Your task to perform on an android device: change keyboard looks Image 0: 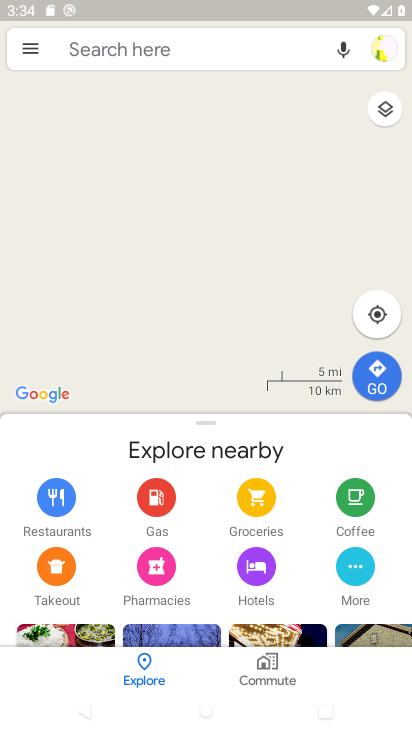
Step 0: press home button
Your task to perform on an android device: change keyboard looks Image 1: 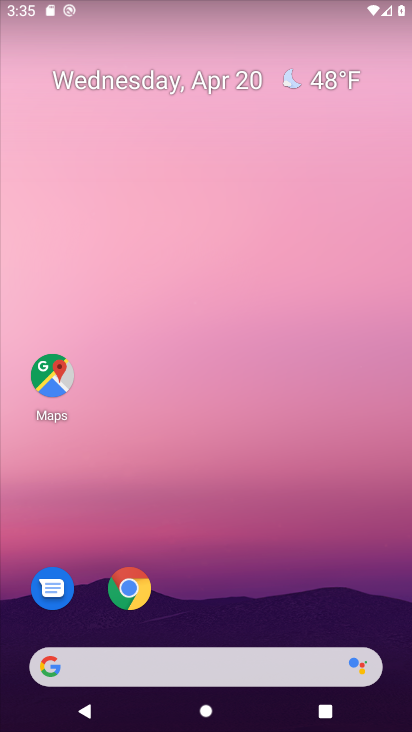
Step 1: drag from (330, 514) to (331, 144)
Your task to perform on an android device: change keyboard looks Image 2: 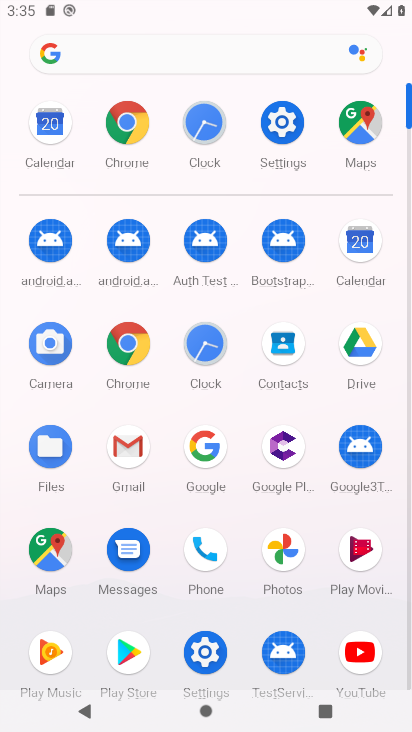
Step 2: click (285, 109)
Your task to perform on an android device: change keyboard looks Image 3: 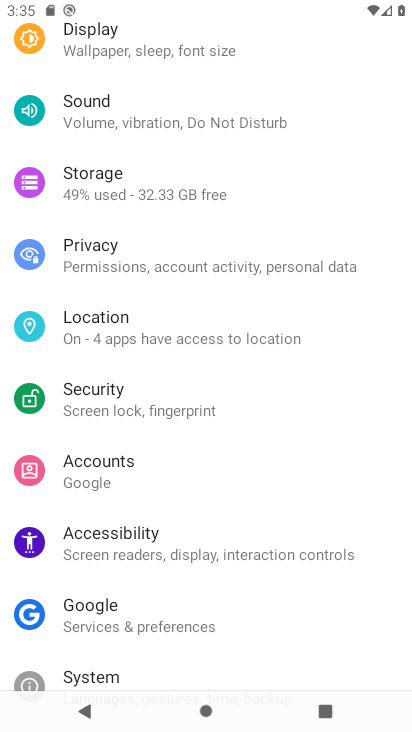
Step 3: drag from (375, 223) to (367, 435)
Your task to perform on an android device: change keyboard looks Image 4: 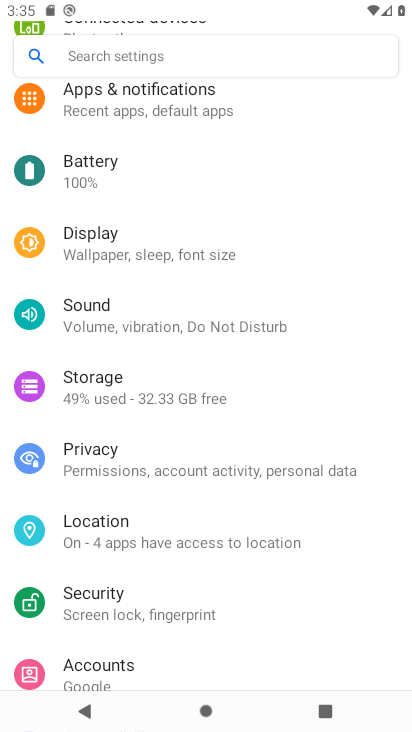
Step 4: drag from (364, 222) to (355, 473)
Your task to perform on an android device: change keyboard looks Image 5: 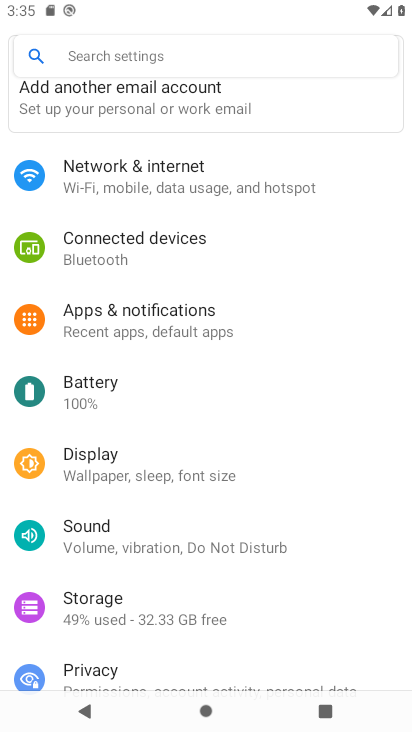
Step 5: drag from (343, 219) to (337, 430)
Your task to perform on an android device: change keyboard looks Image 6: 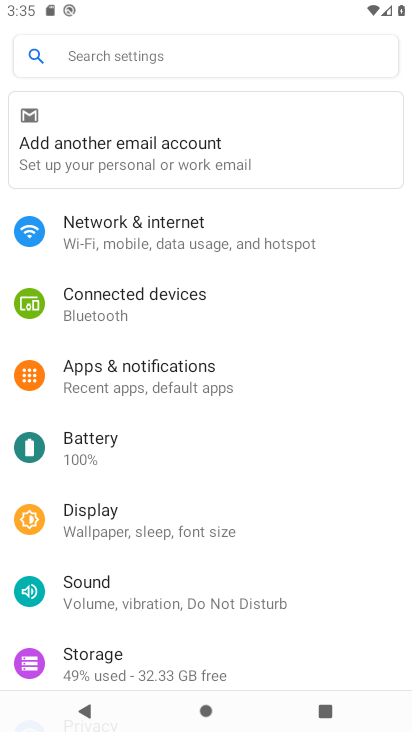
Step 6: drag from (327, 470) to (347, 267)
Your task to perform on an android device: change keyboard looks Image 7: 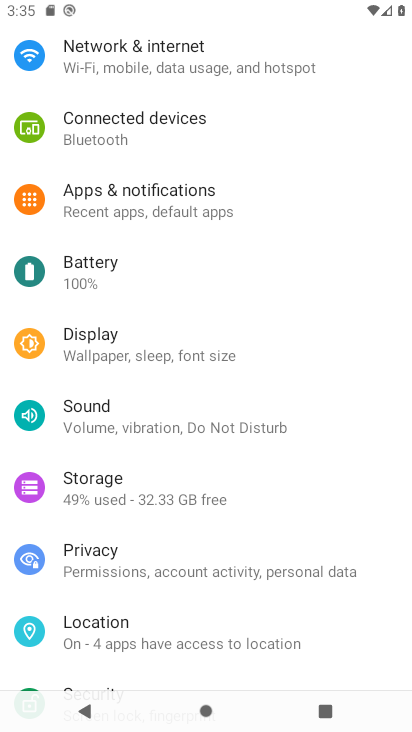
Step 7: drag from (314, 488) to (315, 231)
Your task to perform on an android device: change keyboard looks Image 8: 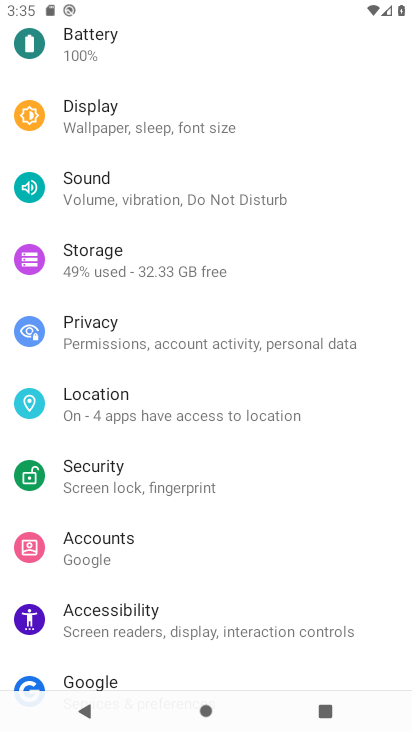
Step 8: drag from (313, 524) to (318, 306)
Your task to perform on an android device: change keyboard looks Image 9: 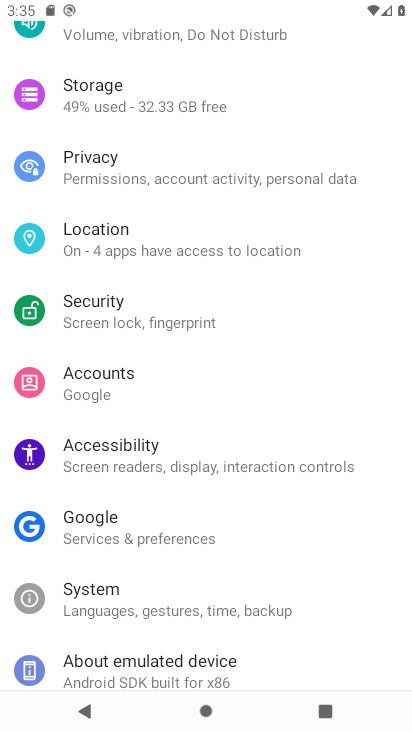
Step 9: drag from (349, 603) to (345, 389)
Your task to perform on an android device: change keyboard looks Image 10: 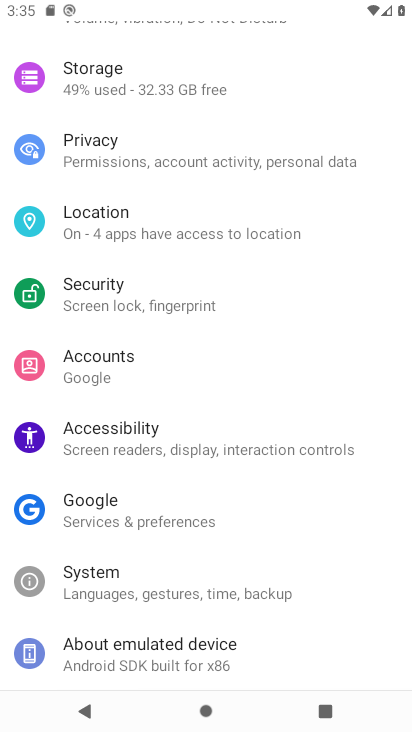
Step 10: click (225, 585)
Your task to perform on an android device: change keyboard looks Image 11: 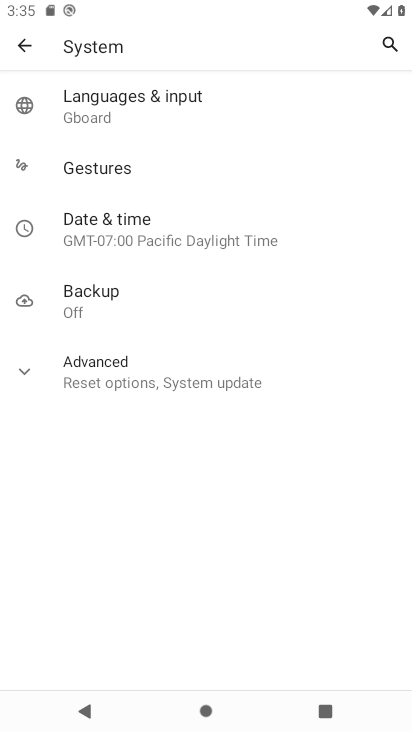
Step 11: click (100, 108)
Your task to perform on an android device: change keyboard looks Image 12: 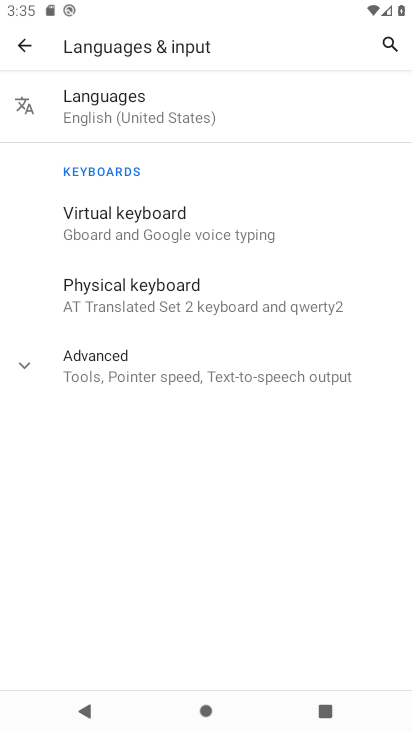
Step 12: click (199, 216)
Your task to perform on an android device: change keyboard looks Image 13: 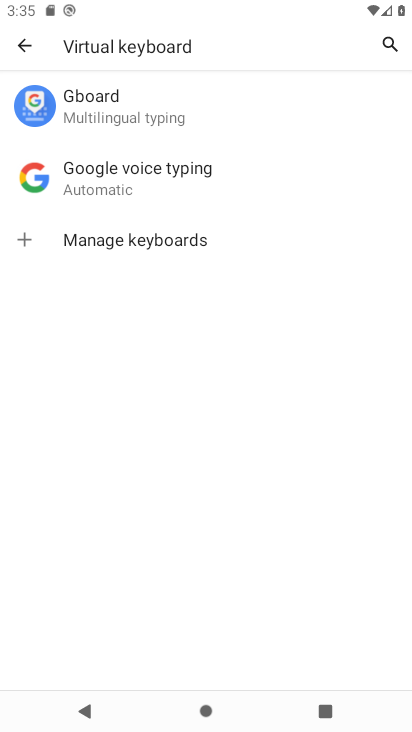
Step 13: click (109, 99)
Your task to perform on an android device: change keyboard looks Image 14: 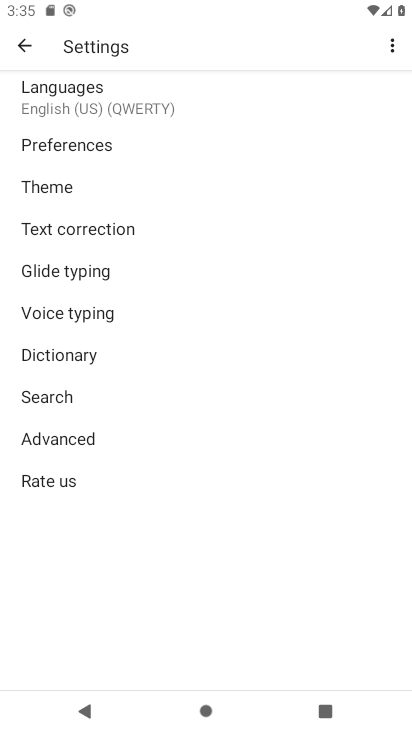
Step 14: click (105, 188)
Your task to perform on an android device: change keyboard looks Image 15: 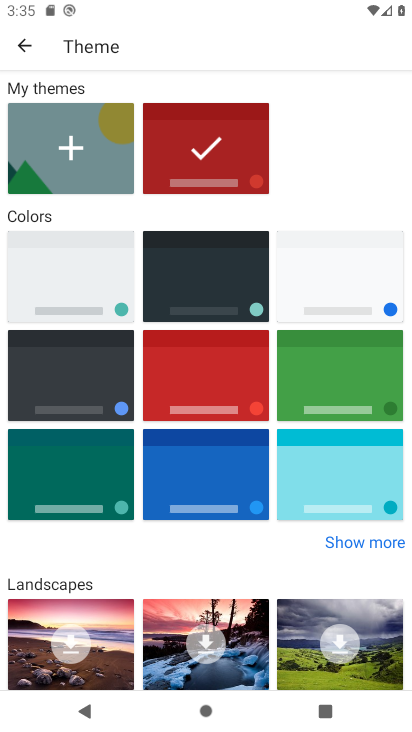
Step 15: click (204, 386)
Your task to perform on an android device: change keyboard looks Image 16: 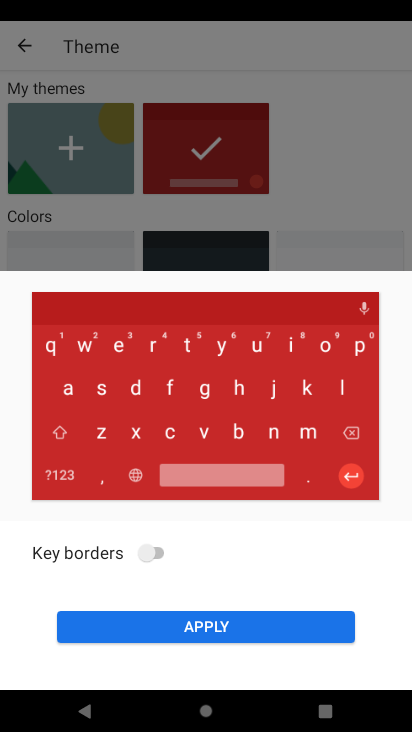
Step 16: click (299, 634)
Your task to perform on an android device: change keyboard looks Image 17: 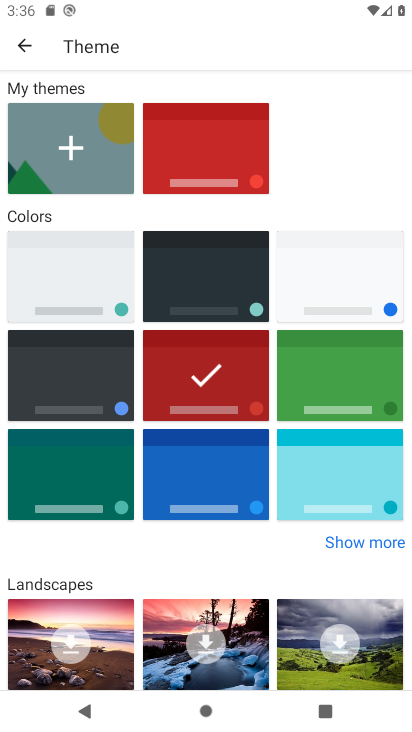
Step 17: task complete